Your task to perform on an android device: visit the assistant section in the google photos Image 0: 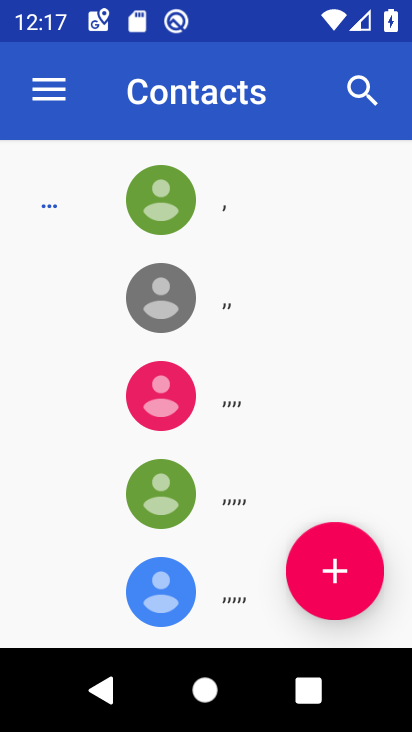
Step 0: press home button
Your task to perform on an android device: visit the assistant section in the google photos Image 1: 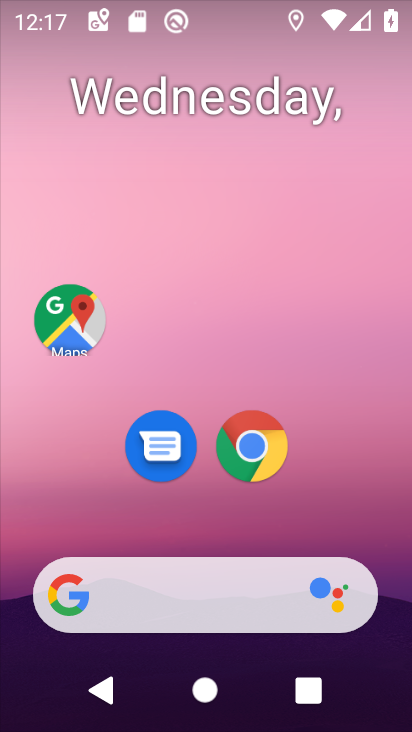
Step 1: drag from (366, 552) to (380, 41)
Your task to perform on an android device: visit the assistant section in the google photos Image 2: 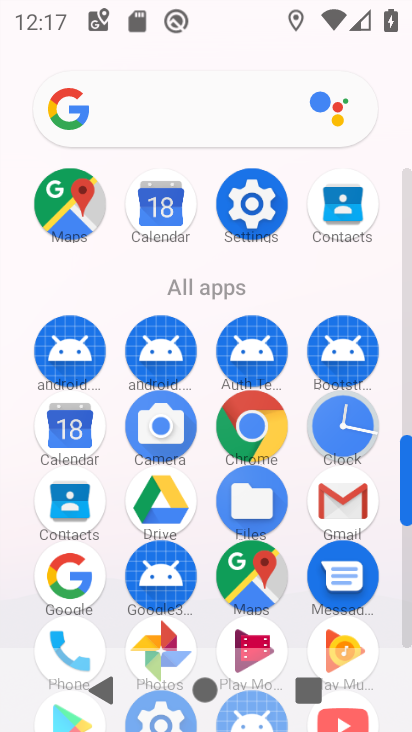
Step 2: drag from (404, 501) to (404, 463)
Your task to perform on an android device: visit the assistant section in the google photos Image 3: 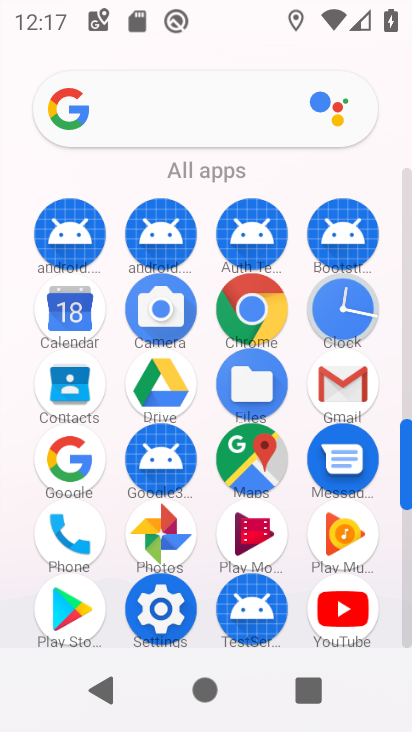
Step 3: click (159, 540)
Your task to perform on an android device: visit the assistant section in the google photos Image 4: 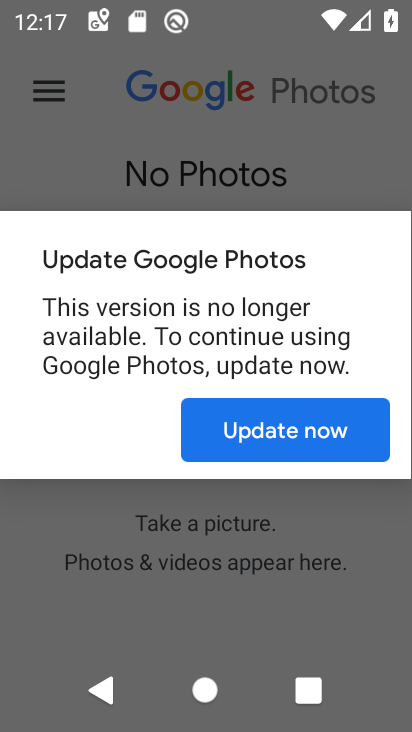
Step 4: click (281, 425)
Your task to perform on an android device: visit the assistant section in the google photos Image 5: 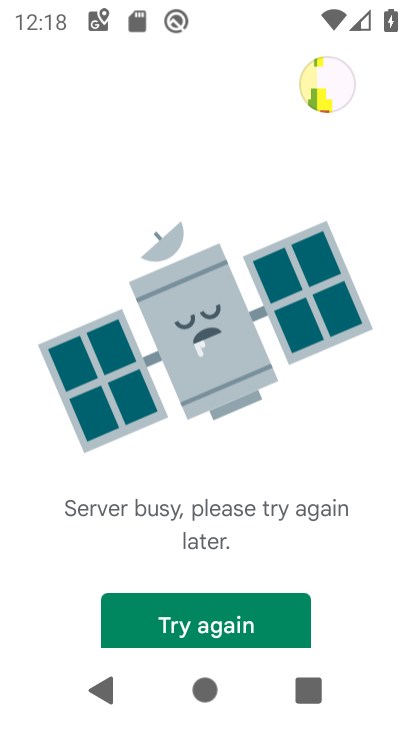
Step 5: task complete